Your task to perform on an android device: change the upload size in google photos Image 0: 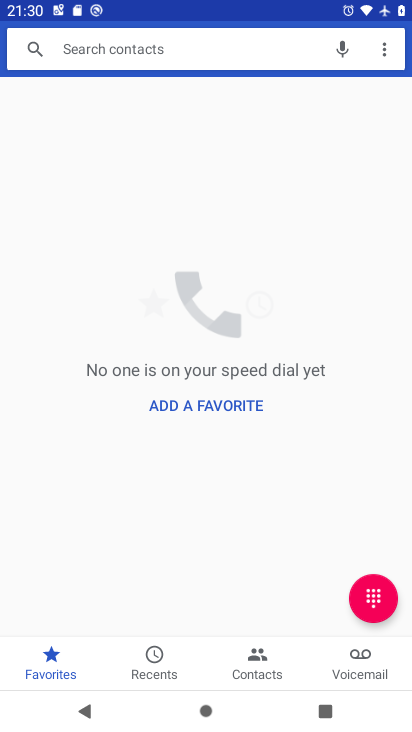
Step 0: press home button
Your task to perform on an android device: change the upload size in google photos Image 1: 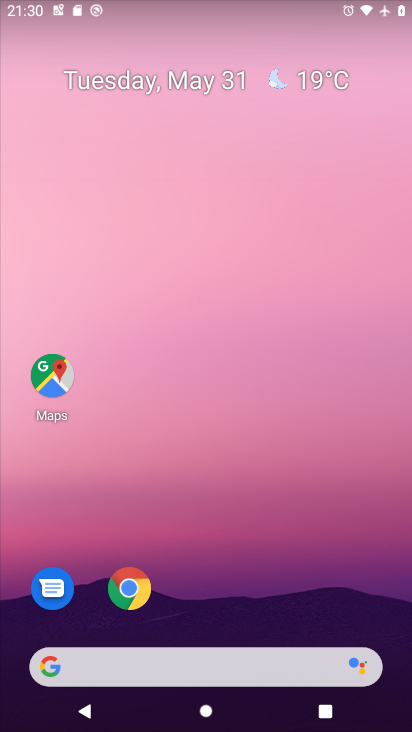
Step 1: drag from (167, 664) to (335, 165)
Your task to perform on an android device: change the upload size in google photos Image 2: 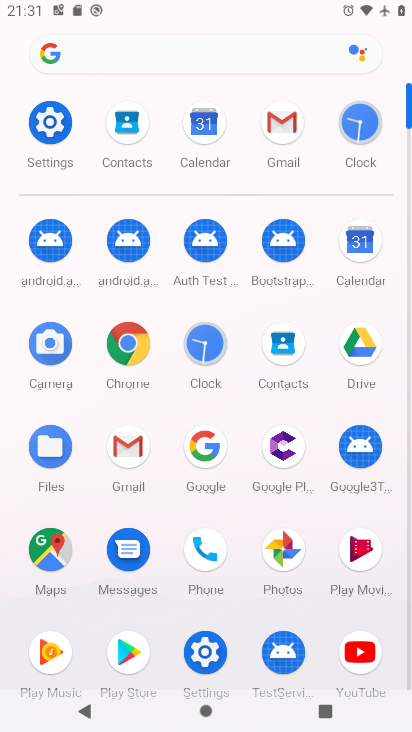
Step 2: click (274, 557)
Your task to perform on an android device: change the upload size in google photos Image 3: 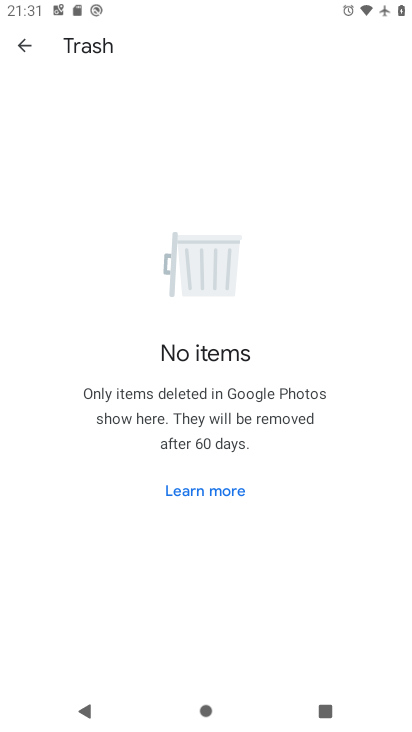
Step 3: click (26, 40)
Your task to perform on an android device: change the upload size in google photos Image 4: 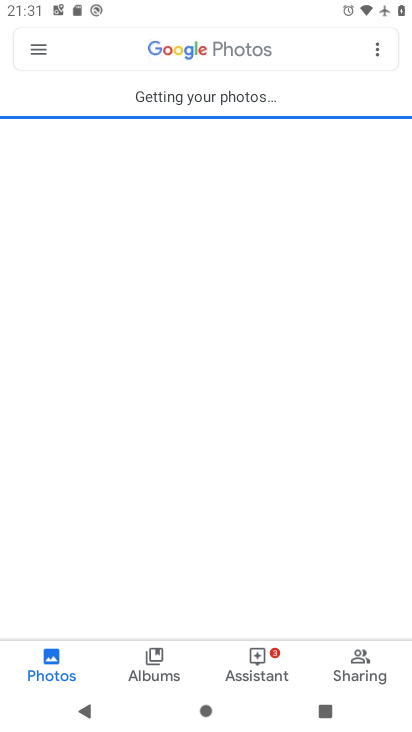
Step 4: click (36, 43)
Your task to perform on an android device: change the upload size in google photos Image 5: 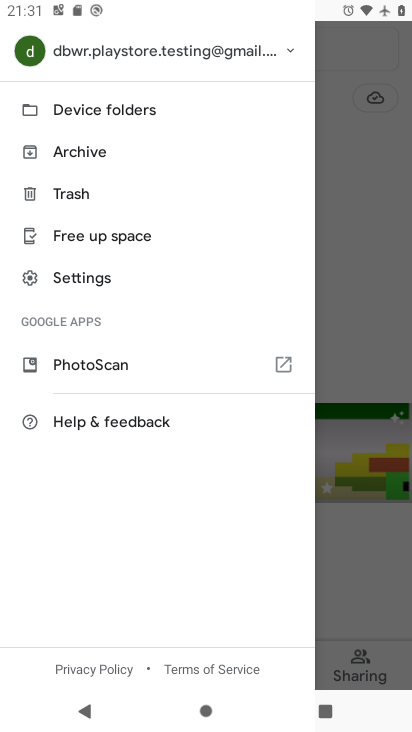
Step 5: click (62, 271)
Your task to perform on an android device: change the upload size in google photos Image 6: 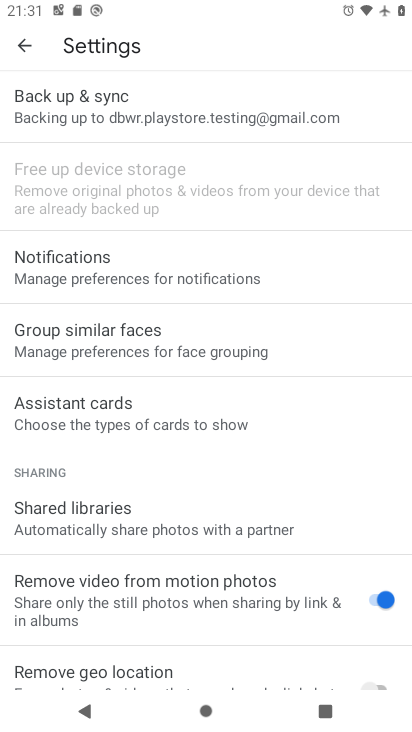
Step 6: click (145, 114)
Your task to perform on an android device: change the upload size in google photos Image 7: 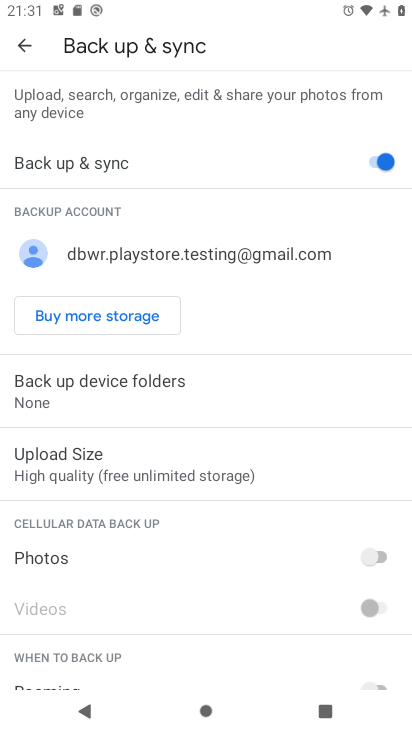
Step 7: click (60, 460)
Your task to perform on an android device: change the upload size in google photos Image 8: 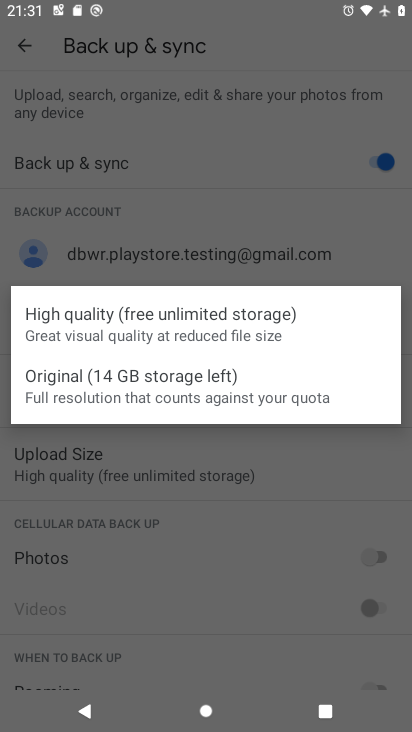
Step 8: click (57, 381)
Your task to perform on an android device: change the upload size in google photos Image 9: 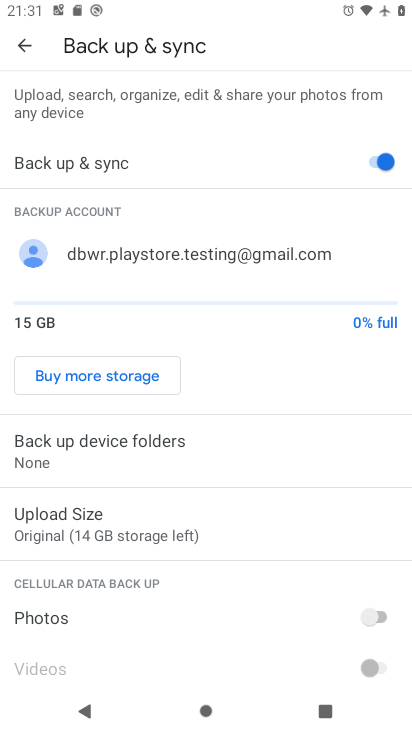
Step 9: task complete